Your task to perform on an android device: Go to battery settings Image 0: 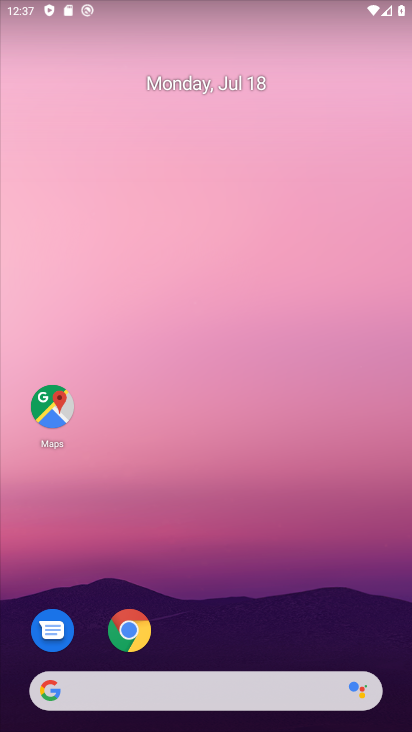
Step 0: drag from (373, 626) to (285, 6)
Your task to perform on an android device: Go to battery settings Image 1: 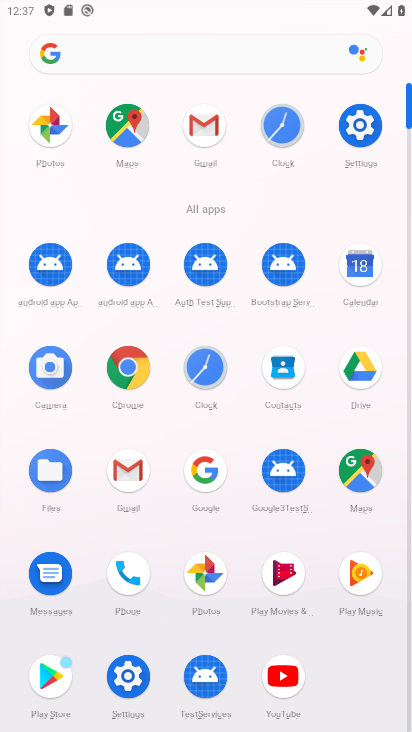
Step 1: click (359, 128)
Your task to perform on an android device: Go to battery settings Image 2: 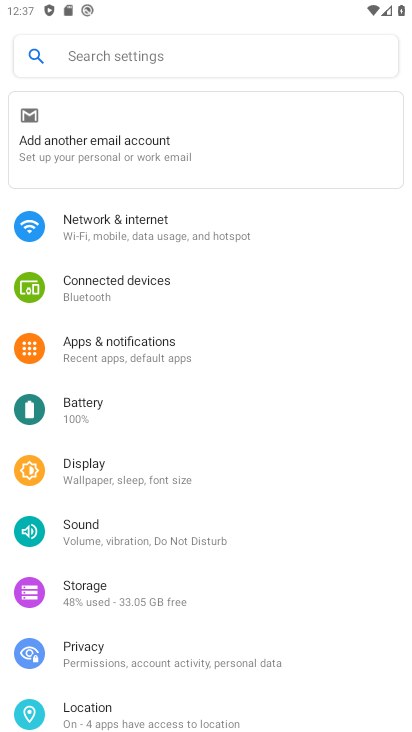
Step 2: click (208, 393)
Your task to perform on an android device: Go to battery settings Image 3: 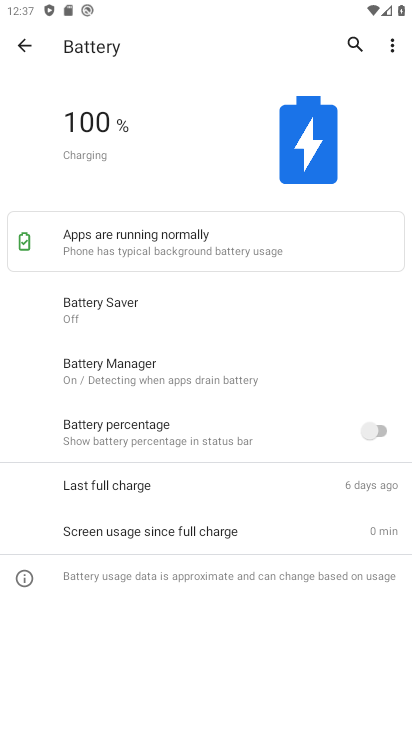
Step 3: task complete